Your task to perform on an android device: change alarm snooze length Image 0: 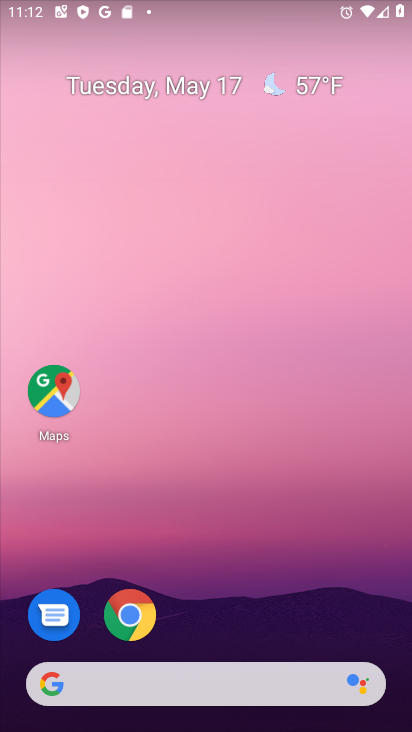
Step 0: drag from (277, 594) to (303, 196)
Your task to perform on an android device: change alarm snooze length Image 1: 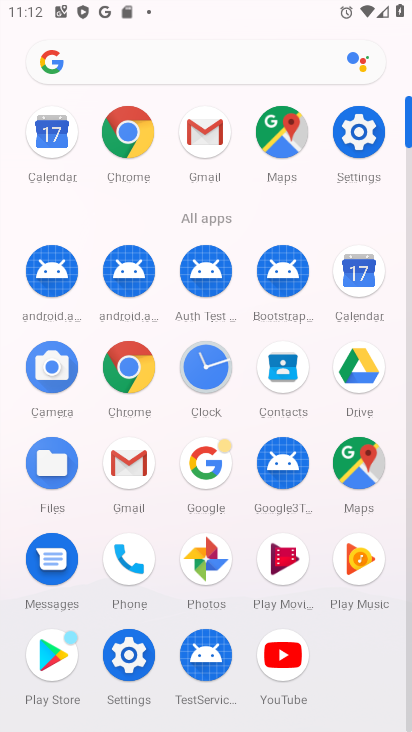
Step 1: click (220, 361)
Your task to perform on an android device: change alarm snooze length Image 2: 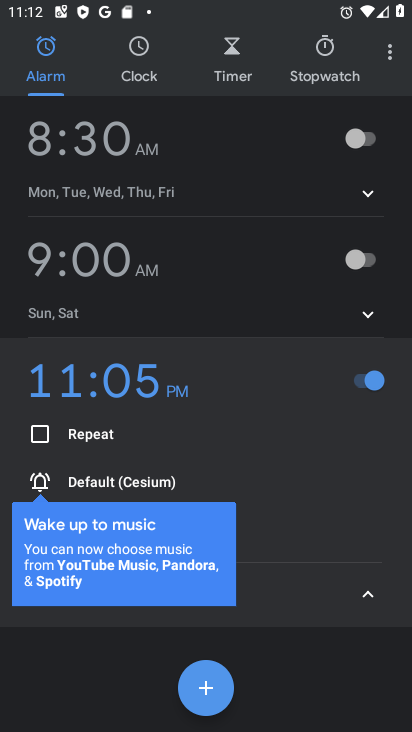
Step 2: drag from (387, 48) to (260, 107)
Your task to perform on an android device: change alarm snooze length Image 3: 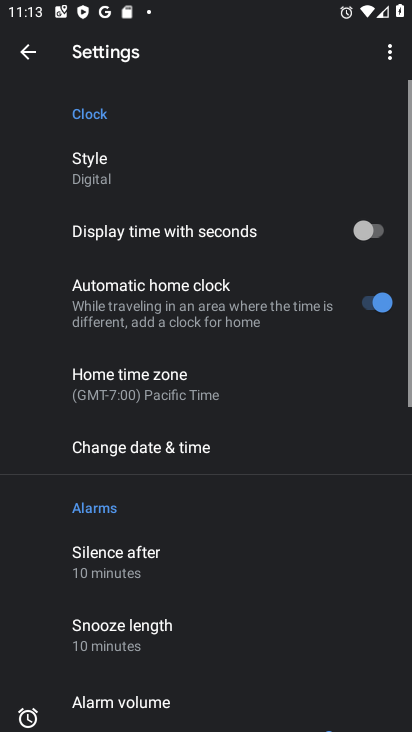
Step 3: drag from (268, 582) to (309, 105)
Your task to perform on an android device: change alarm snooze length Image 4: 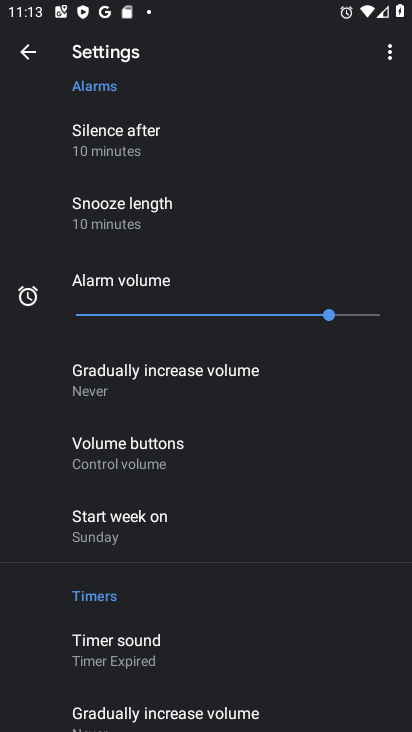
Step 4: click (152, 203)
Your task to perform on an android device: change alarm snooze length Image 5: 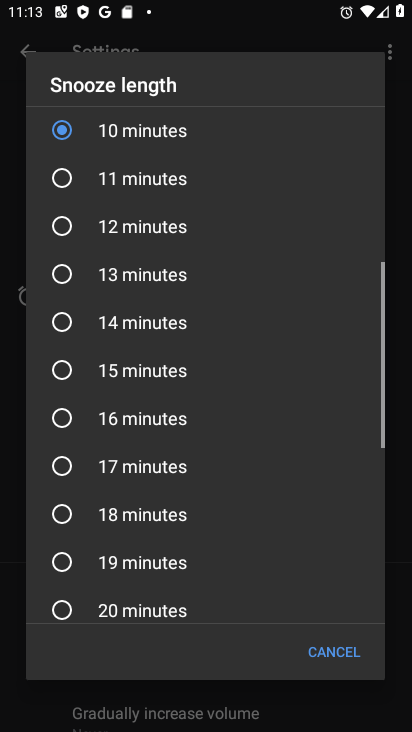
Step 5: click (164, 178)
Your task to perform on an android device: change alarm snooze length Image 6: 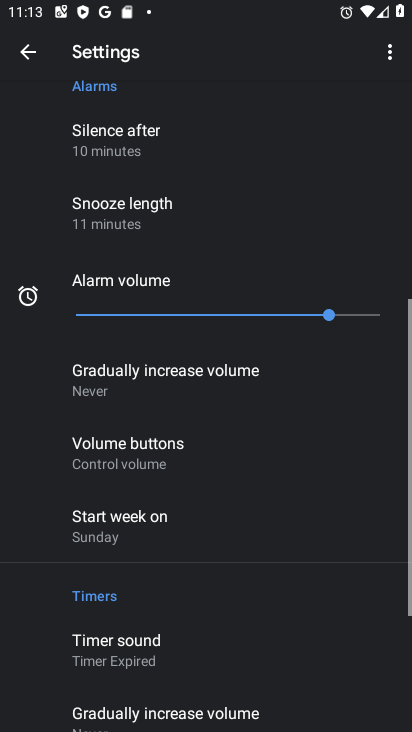
Step 6: task complete